Your task to perform on an android device: Go to ESPN.com Image 0: 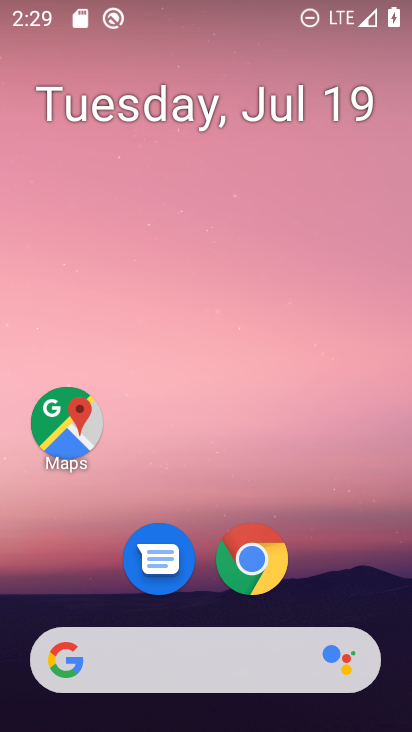
Step 0: drag from (256, 625) to (275, 132)
Your task to perform on an android device: Go to ESPN.com Image 1: 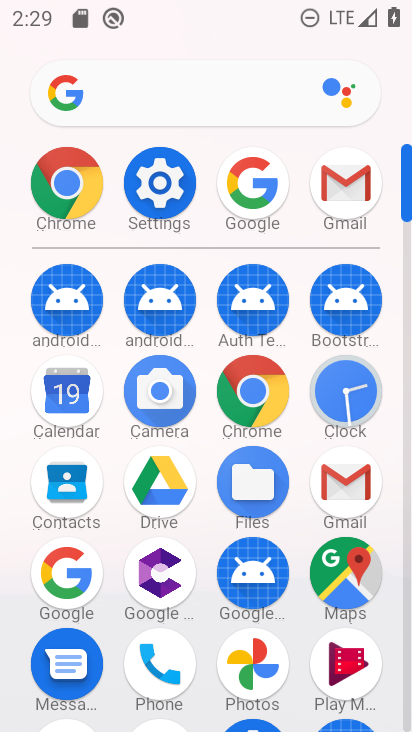
Step 1: click (65, 173)
Your task to perform on an android device: Go to ESPN.com Image 2: 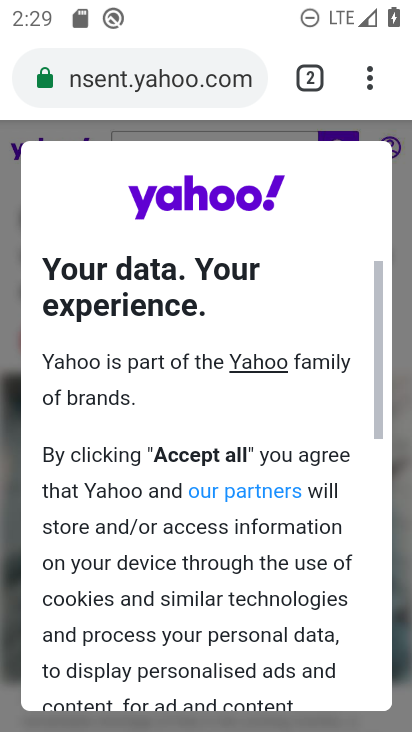
Step 2: click (193, 84)
Your task to perform on an android device: Go to ESPN.com Image 3: 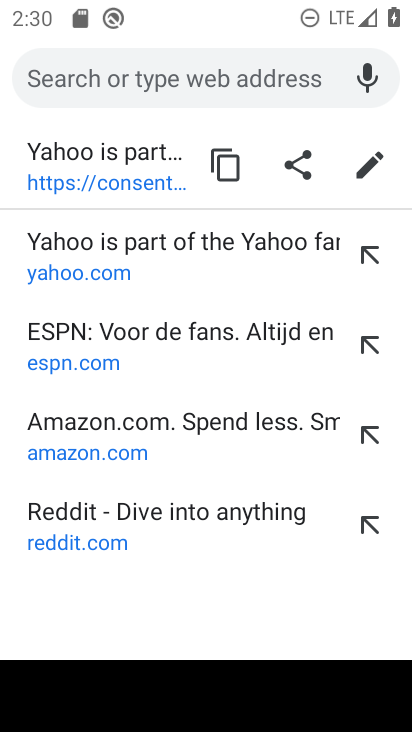
Step 3: click (156, 359)
Your task to perform on an android device: Go to ESPN.com Image 4: 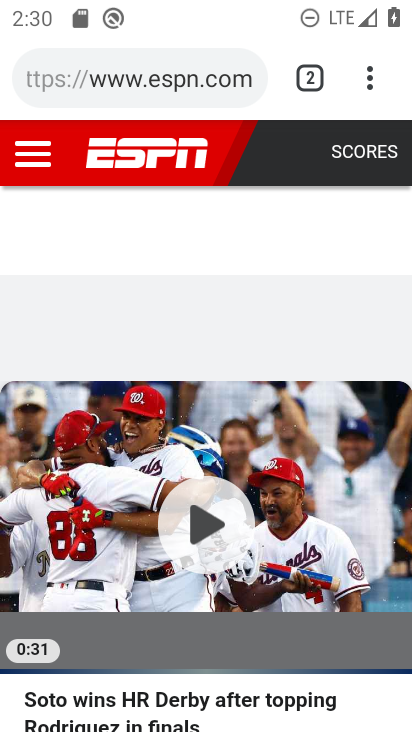
Step 4: task complete